Your task to perform on an android device: Open notification settings Image 0: 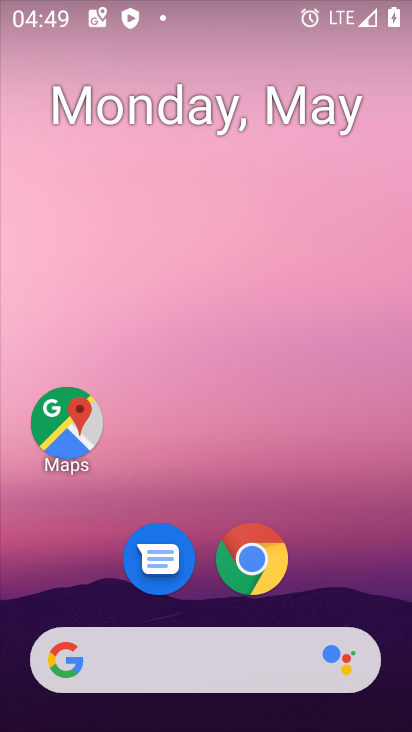
Step 0: drag from (279, 640) to (412, 178)
Your task to perform on an android device: Open notification settings Image 1: 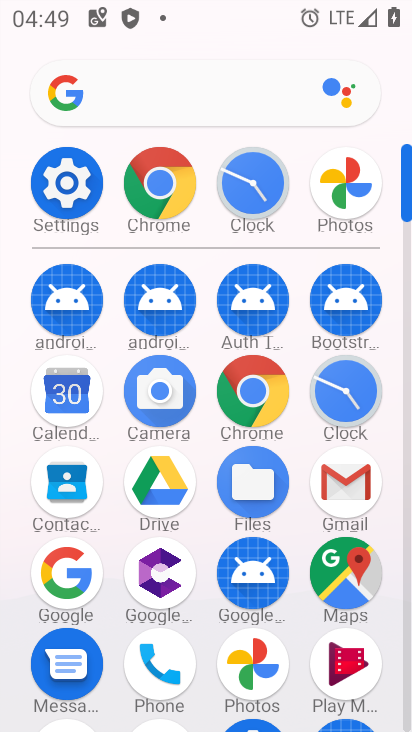
Step 1: click (65, 183)
Your task to perform on an android device: Open notification settings Image 2: 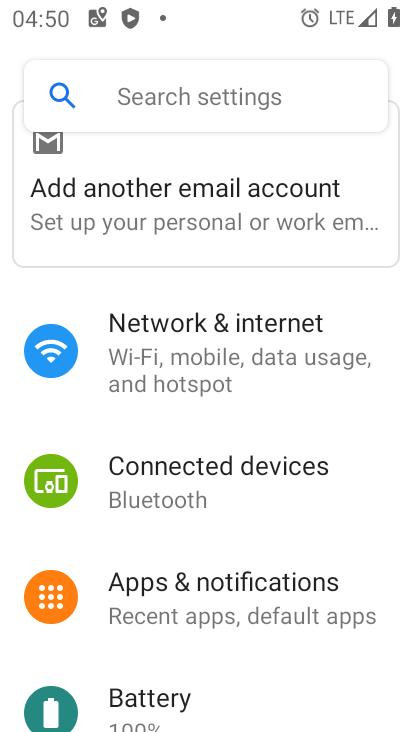
Step 2: click (205, 620)
Your task to perform on an android device: Open notification settings Image 3: 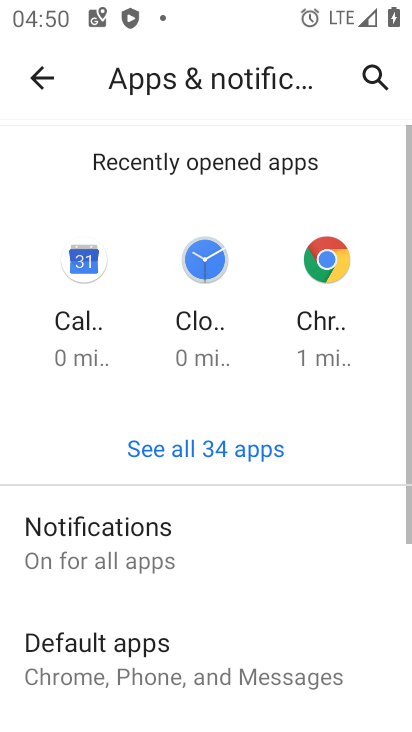
Step 3: task complete